Your task to perform on an android device: turn off picture-in-picture Image 0: 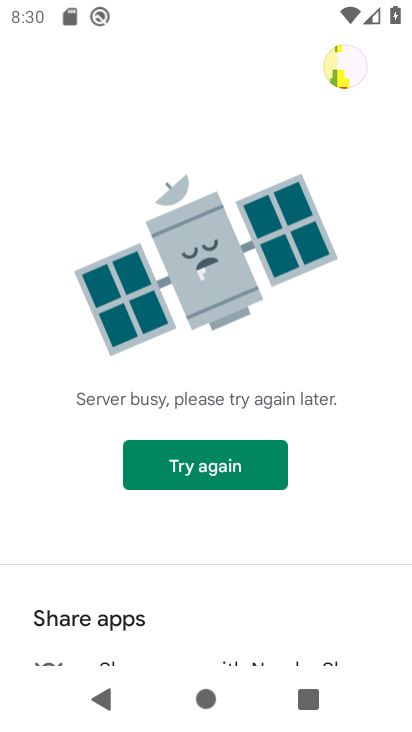
Step 0: press back button
Your task to perform on an android device: turn off picture-in-picture Image 1: 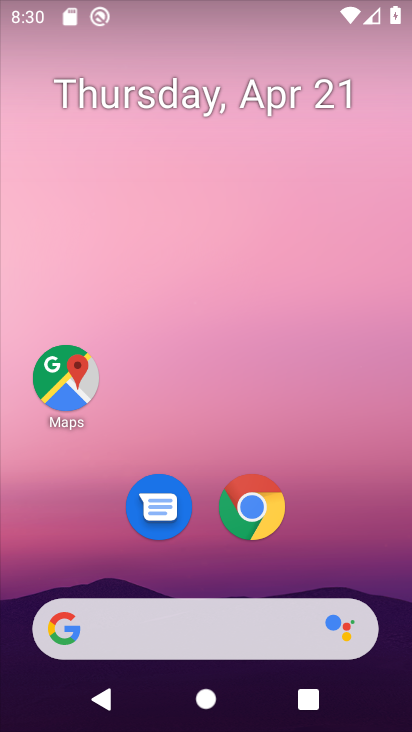
Step 1: click (259, 510)
Your task to perform on an android device: turn off picture-in-picture Image 2: 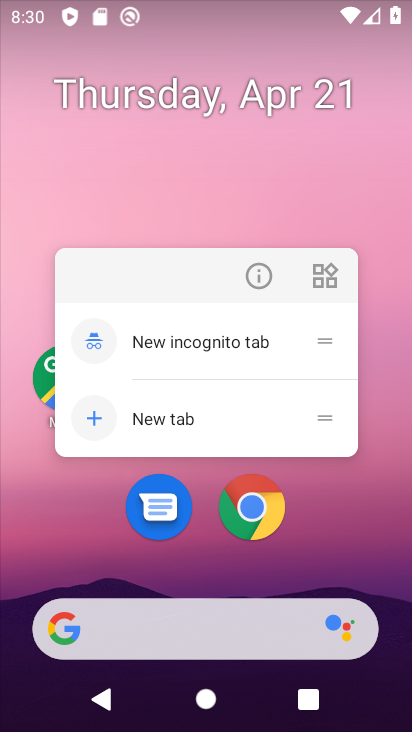
Step 2: click (258, 275)
Your task to perform on an android device: turn off picture-in-picture Image 3: 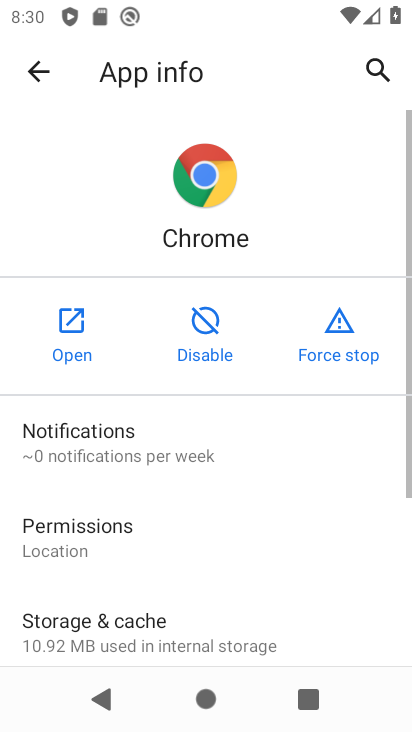
Step 3: drag from (177, 646) to (130, 222)
Your task to perform on an android device: turn off picture-in-picture Image 4: 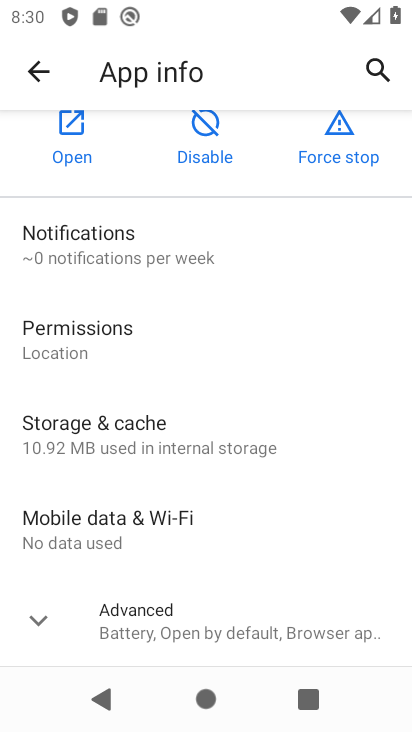
Step 4: click (150, 610)
Your task to perform on an android device: turn off picture-in-picture Image 5: 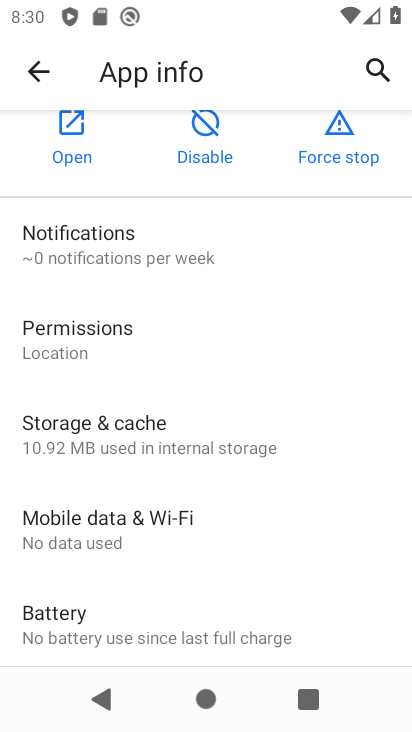
Step 5: drag from (199, 660) to (196, 248)
Your task to perform on an android device: turn off picture-in-picture Image 6: 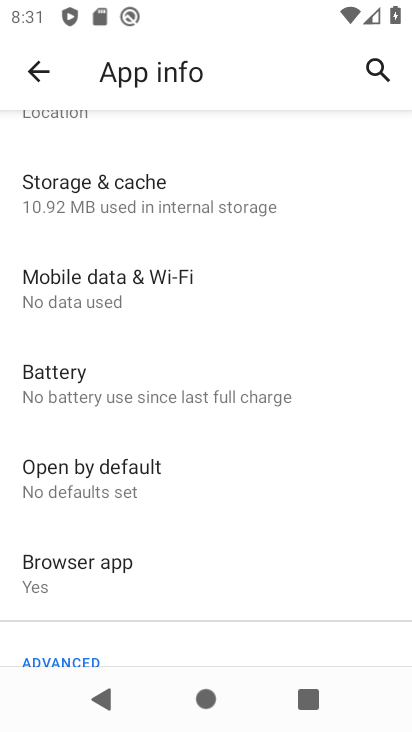
Step 6: drag from (108, 633) to (123, 212)
Your task to perform on an android device: turn off picture-in-picture Image 7: 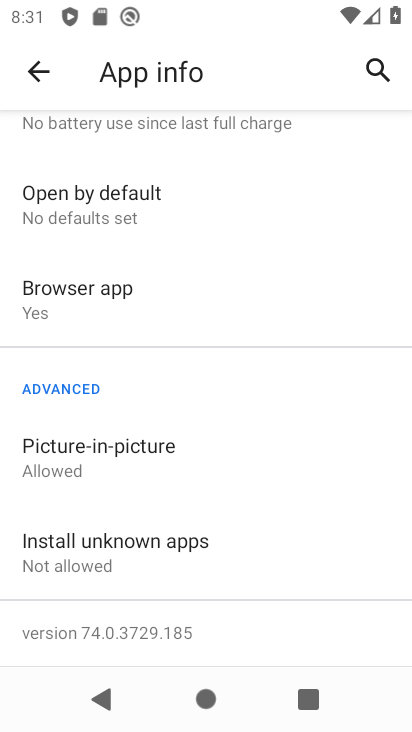
Step 7: click (55, 457)
Your task to perform on an android device: turn off picture-in-picture Image 8: 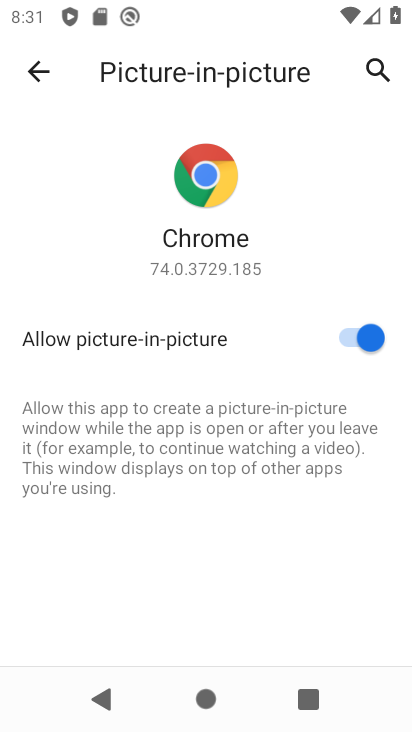
Step 8: click (343, 335)
Your task to perform on an android device: turn off picture-in-picture Image 9: 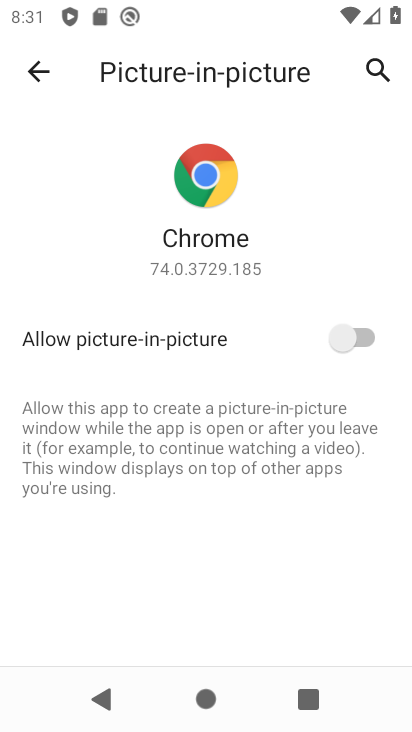
Step 9: task complete